Your task to perform on an android device: Show the shopping cart on ebay.com. Search for duracell triple a on ebay.com, select the first entry, and add it to the cart. Image 0: 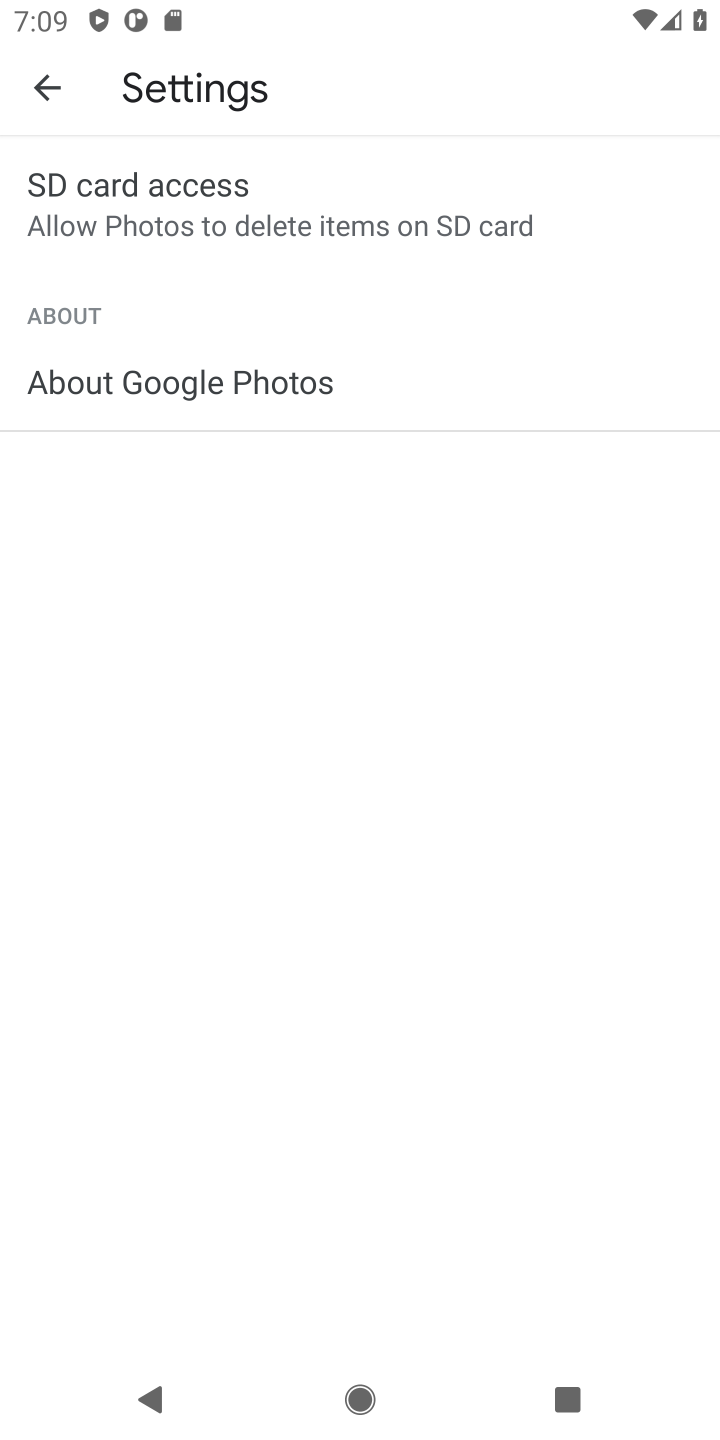
Step 0: press home button
Your task to perform on an android device: Show the shopping cart on ebay.com. Search for duracell triple a on ebay.com, select the first entry, and add it to the cart. Image 1: 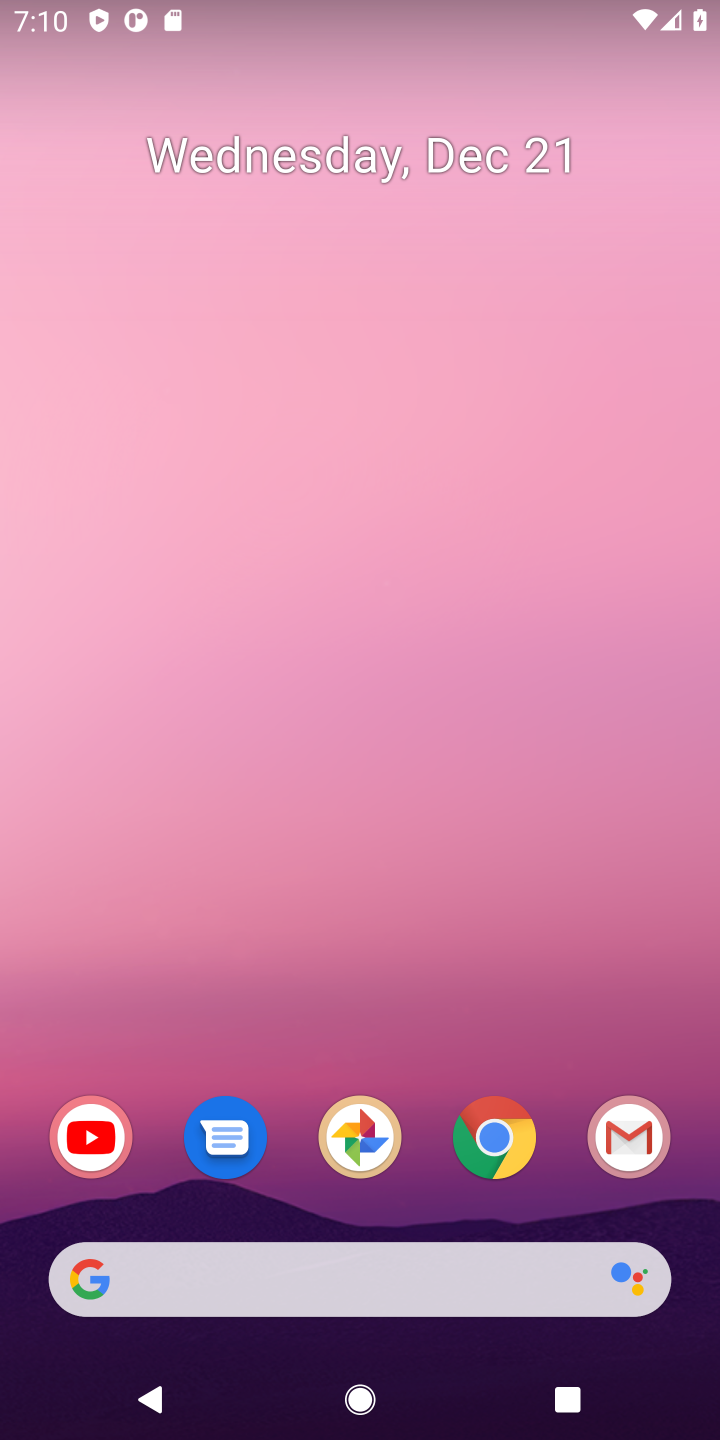
Step 1: click (500, 1148)
Your task to perform on an android device: Show the shopping cart on ebay.com. Search for duracell triple a on ebay.com, select the first entry, and add it to the cart. Image 2: 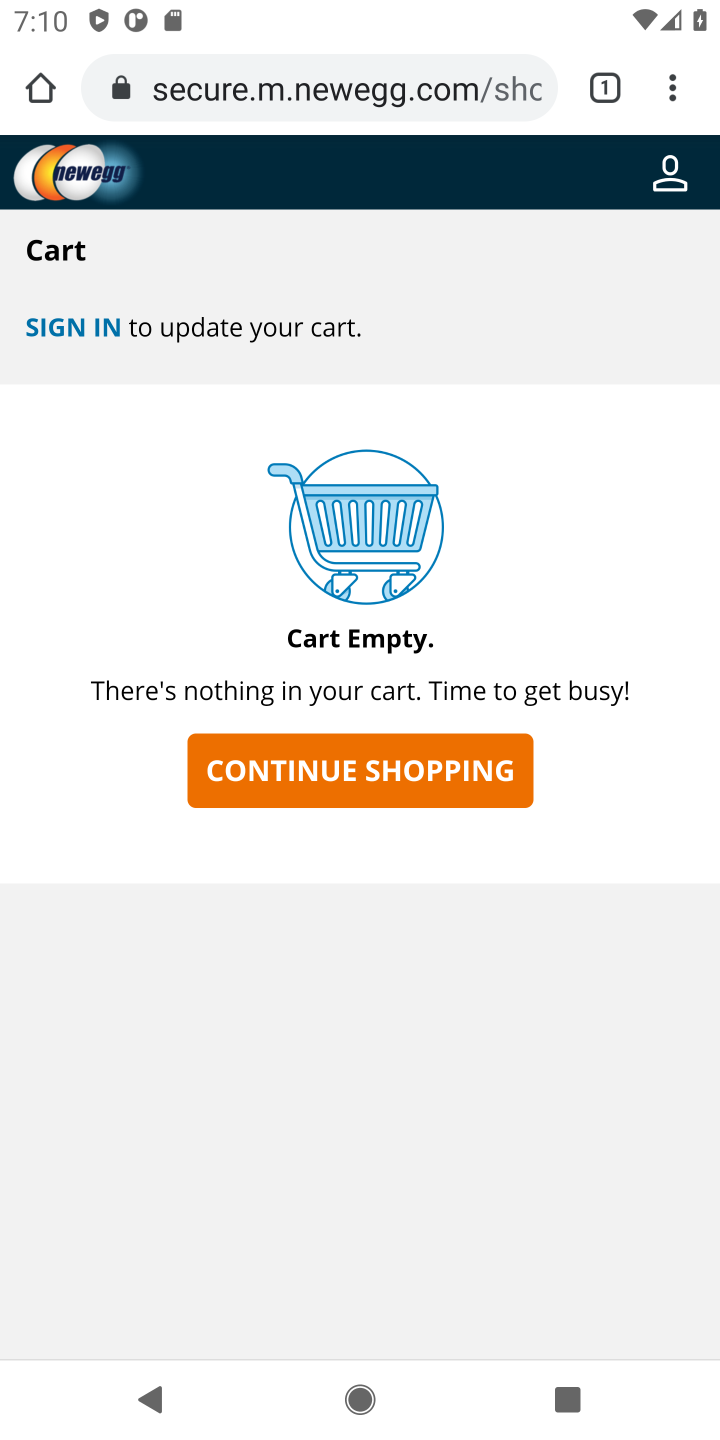
Step 2: click (241, 103)
Your task to perform on an android device: Show the shopping cart on ebay.com. Search for duracell triple a on ebay.com, select the first entry, and add it to the cart. Image 3: 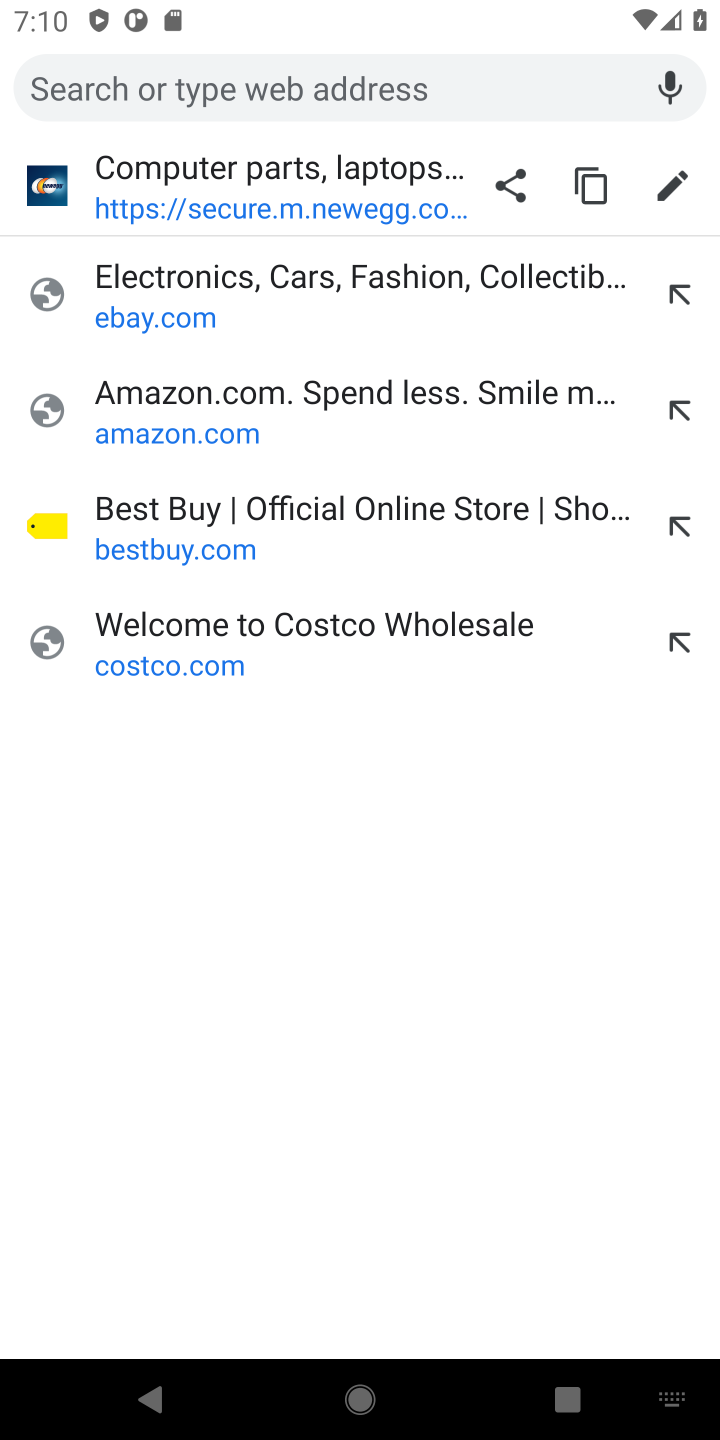
Step 3: click (163, 303)
Your task to perform on an android device: Show the shopping cart on ebay.com. Search for duracell triple a on ebay.com, select the first entry, and add it to the cart. Image 4: 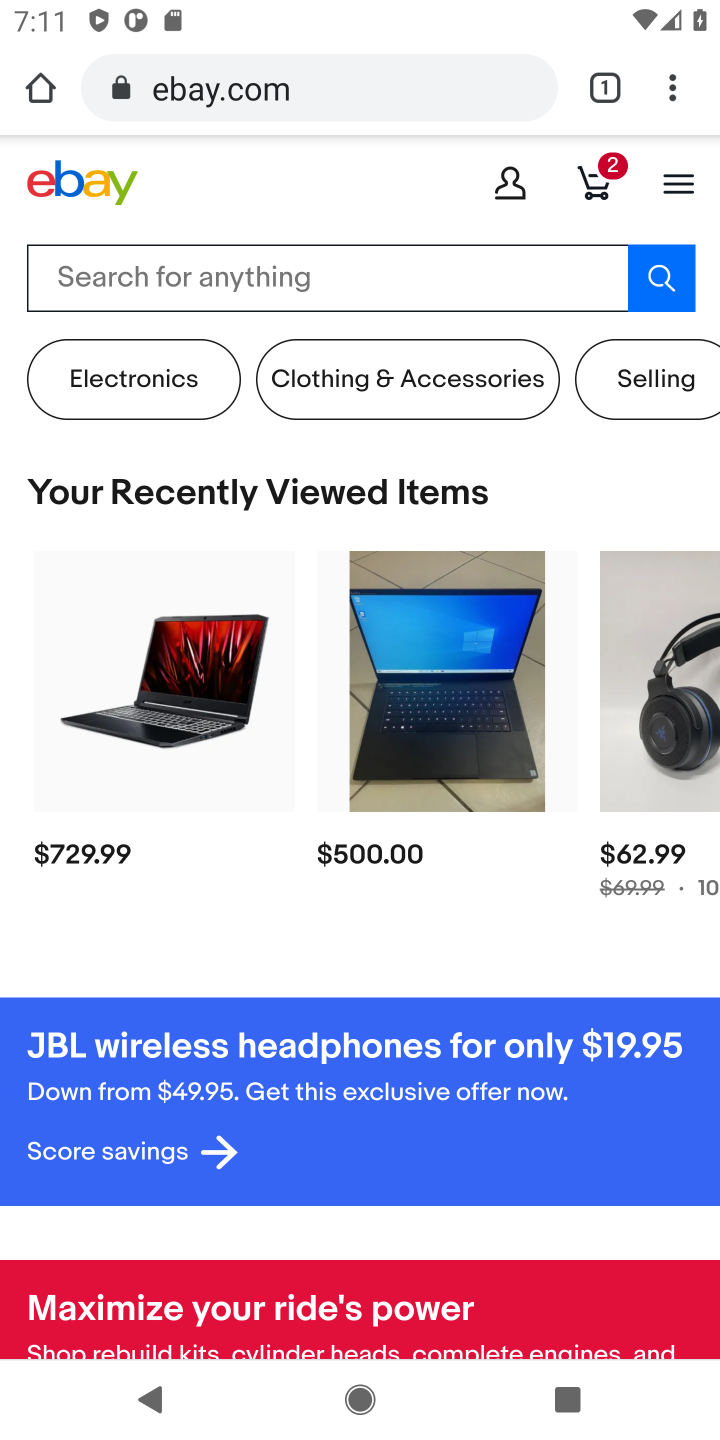
Step 4: click (597, 195)
Your task to perform on an android device: Show the shopping cart on ebay.com. Search for duracell triple a on ebay.com, select the first entry, and add it to the cart. Image 5: 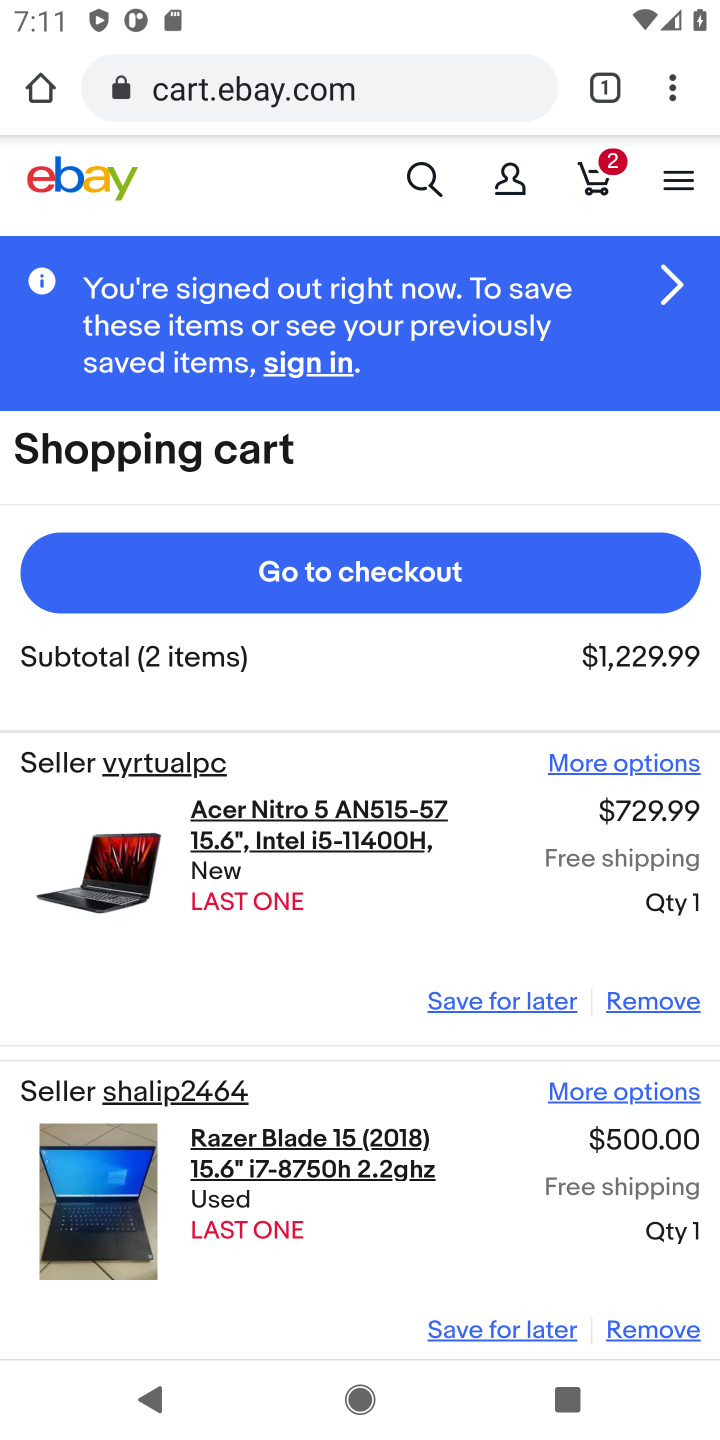
Step 5: click (420, 183)
Your task to perform on an android device: Show the shopping cart on ebay.com. Search for duracell triple a on ebay.com, select the first entry, and add it to the cart. Image 6: 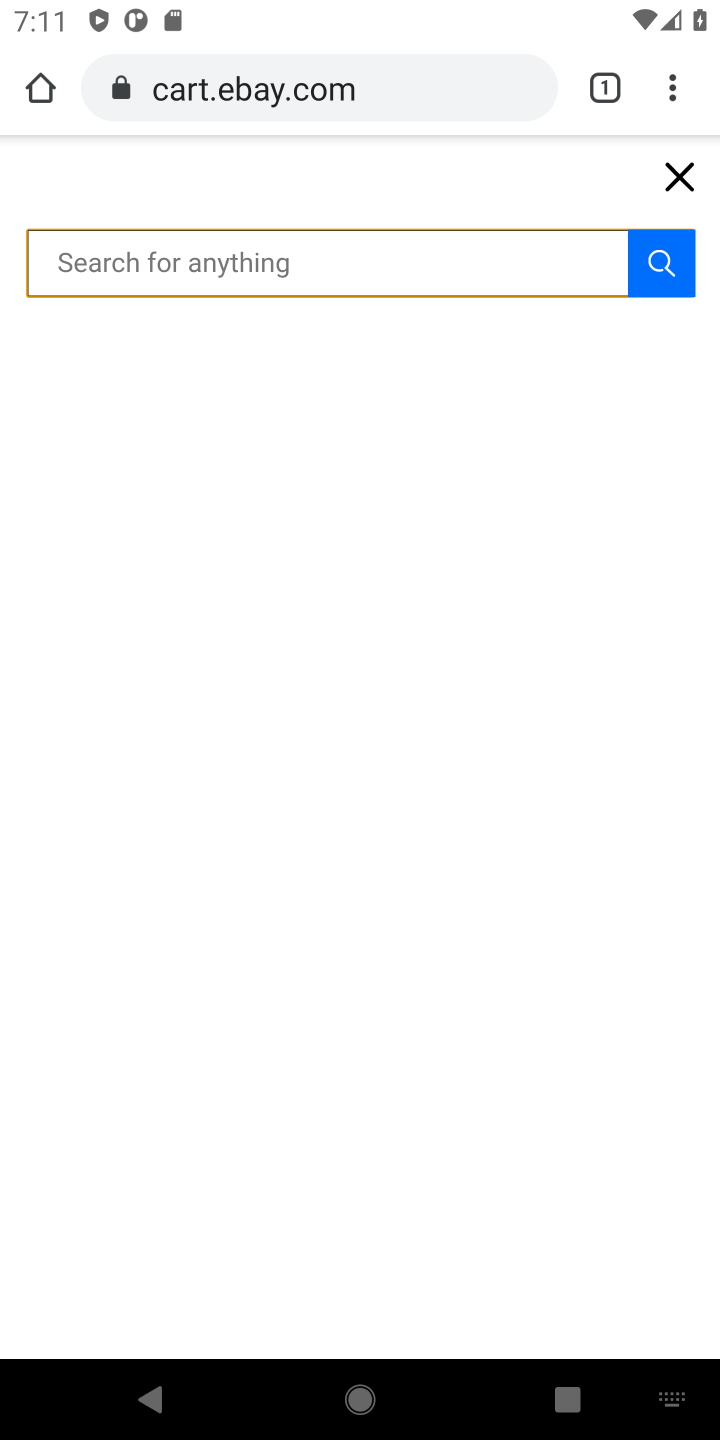
Step 6: type "duracell triple a"
Your task to perform on an android device: Show the shopping cart on ebay.com. Search for duracell triple a on ebay.com, select the first entry, and add it to the cart. Image 7: 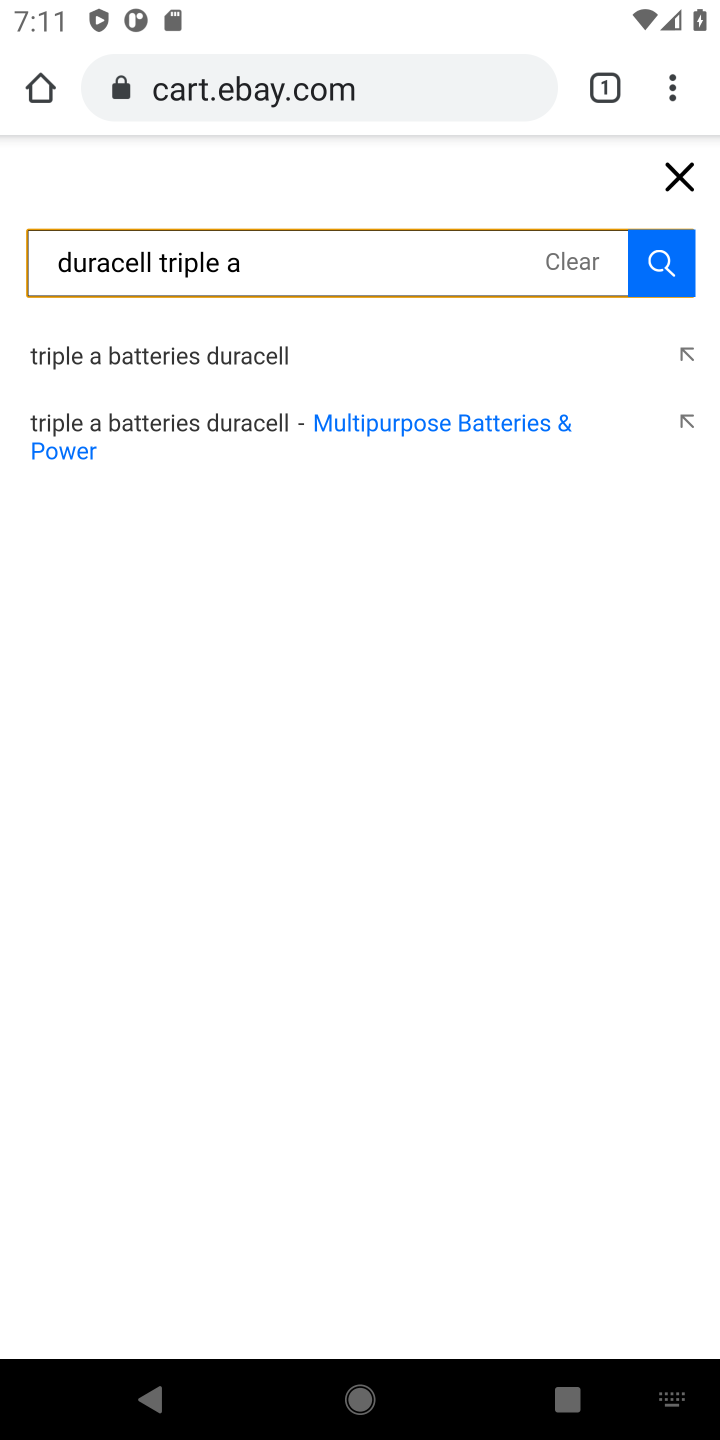
Step 7: click (656, 276)
Your task to perform on an android device: Show the shopping cart on ebay.com. Search for duracell triple a on ebay.com, select the first entry, and add it to the cart. Image 8: 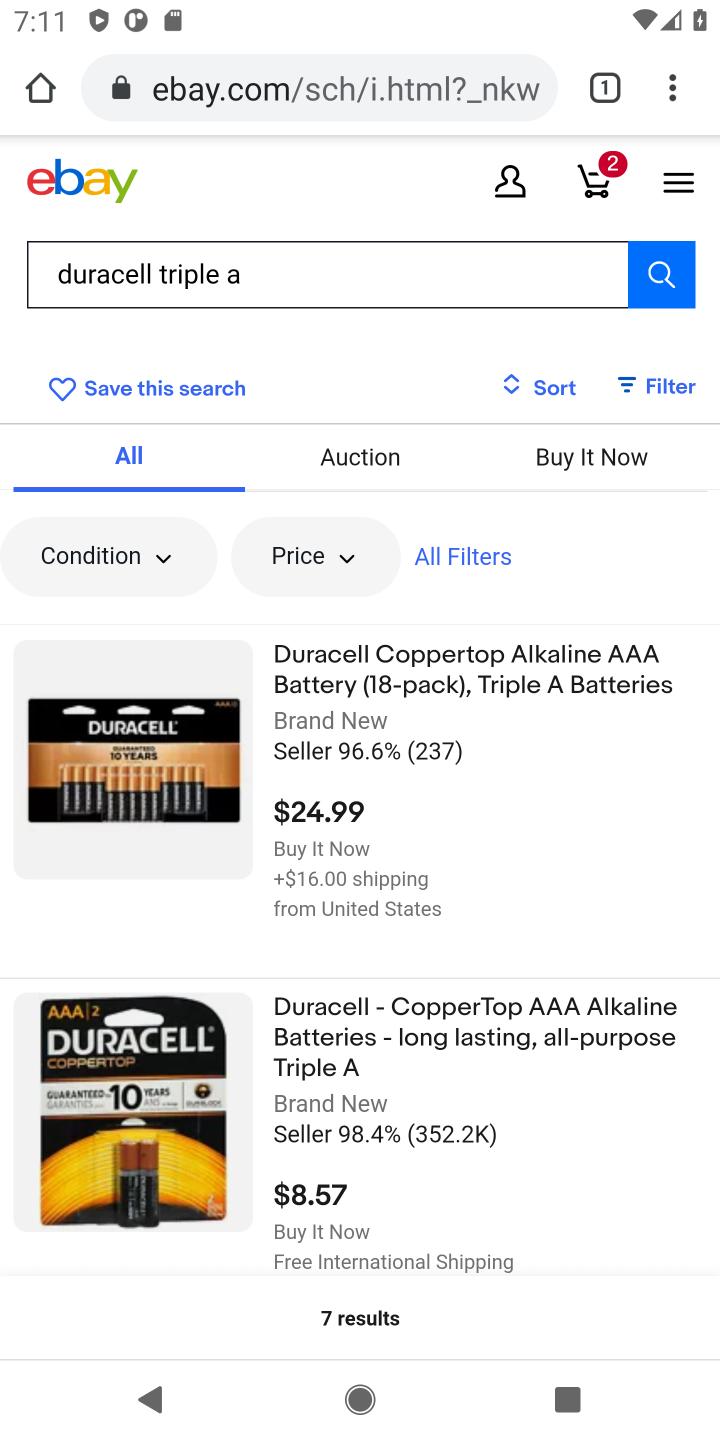
Step 8: click (337, 699)
Your task to perform on an android device: Show the shopping cart on ebay.com. Search for duracell triple a on ebay.com, select the first entry, and add it to the cart. Image 9: 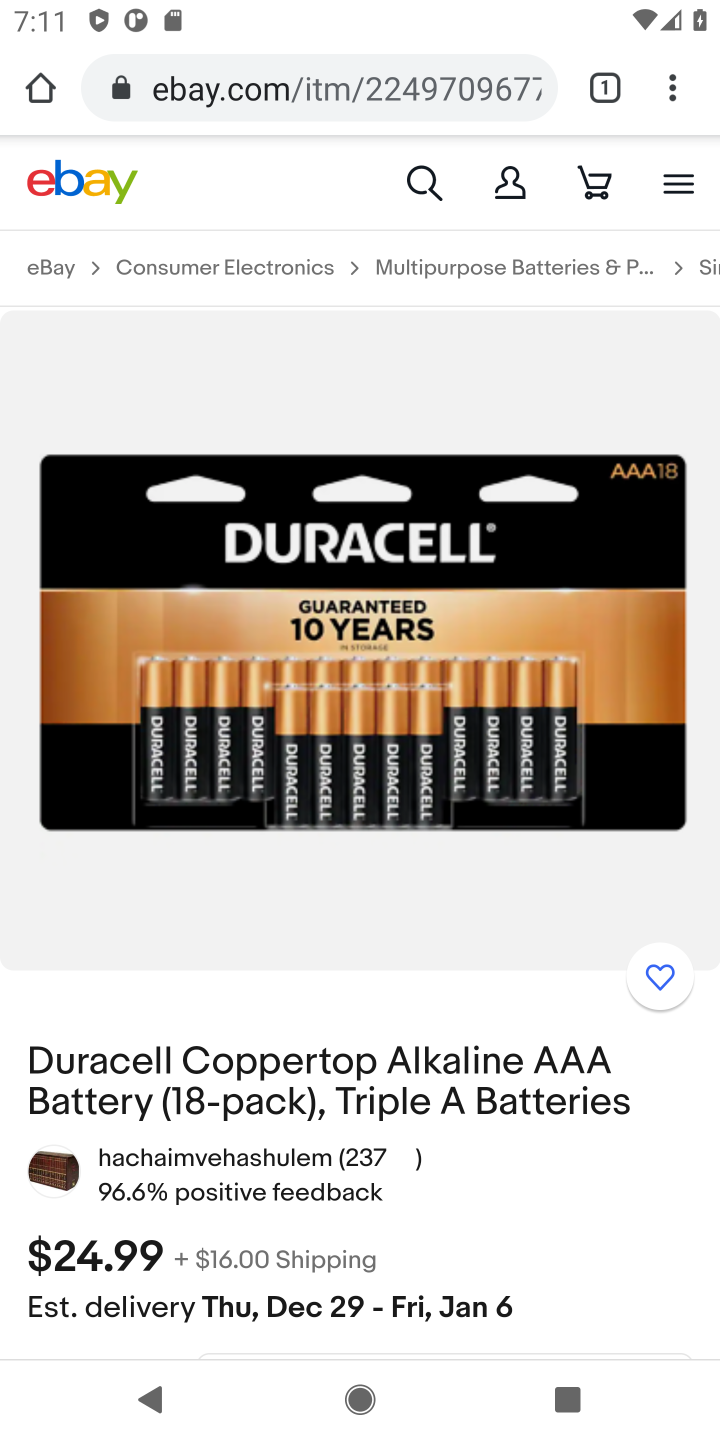
Step 9: drag from (285, 1196) to (300, 622)
Your task to perform on an android device: Show the shopping cart on ebay.com. Search for duracell triple a on ebay.com, select the first entry, and add it to the cart. Image 10: 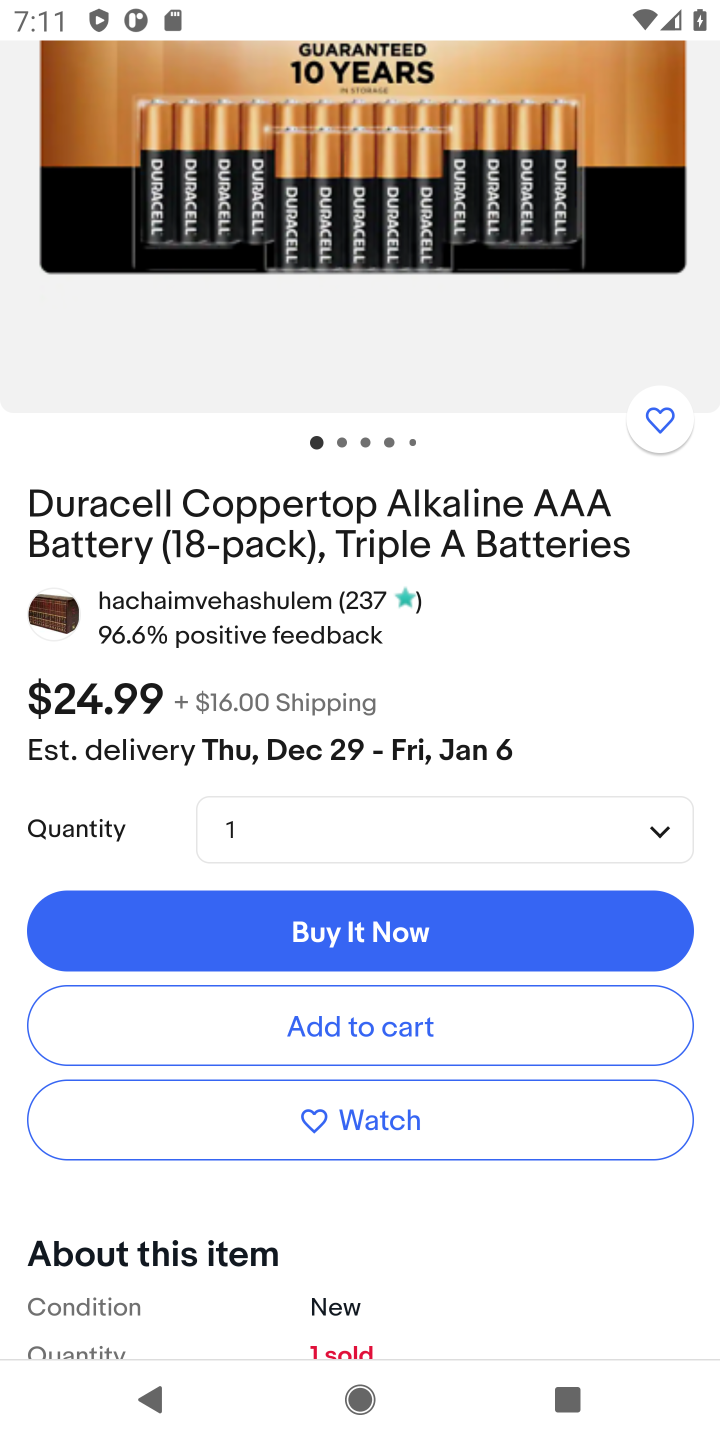
Step 10: click (282, 1026)
Your task to perform on an android device: Show the shopping cart on ebay.com. Search for duracell triple a on ebay.com, select the first entry, and add it to the cart. Image 11: 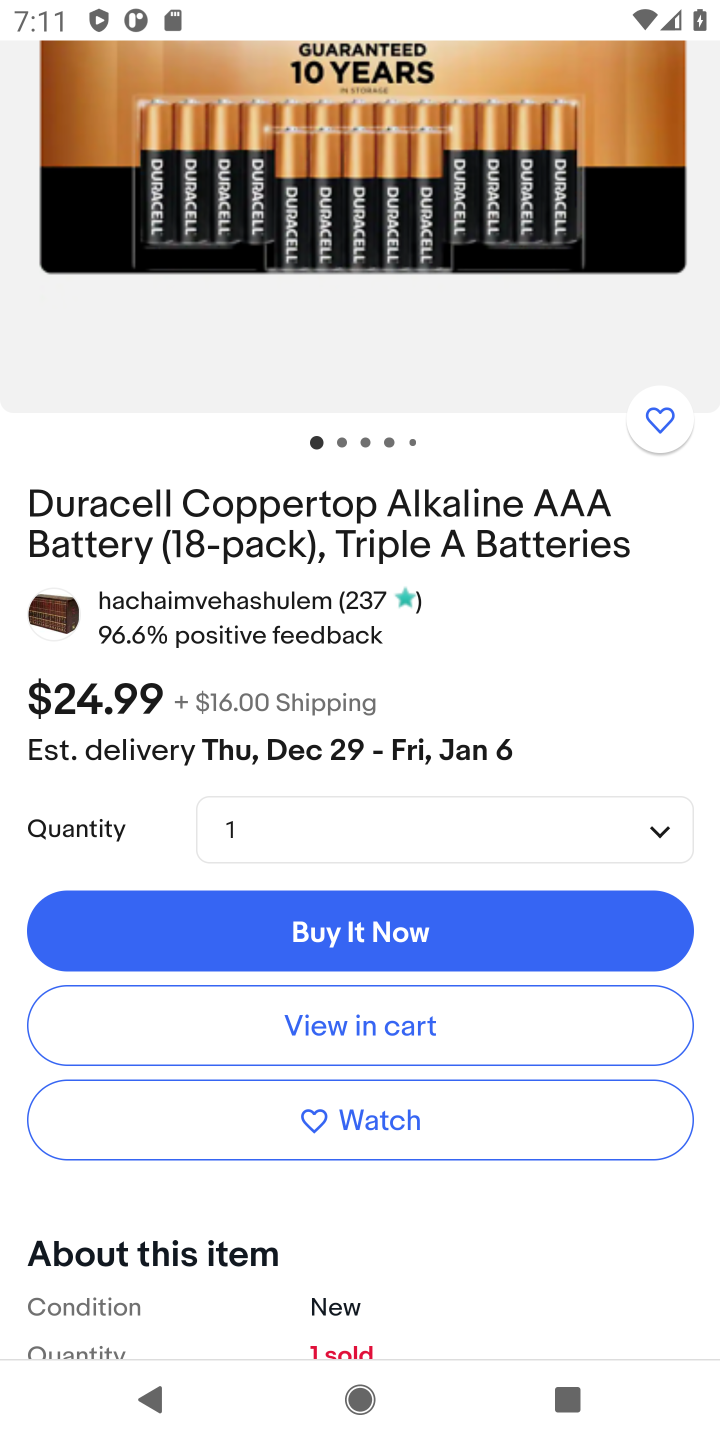
Step 11: task complete